Your task to perform on an android device: stop showing notifications on the lock screen Image 0: 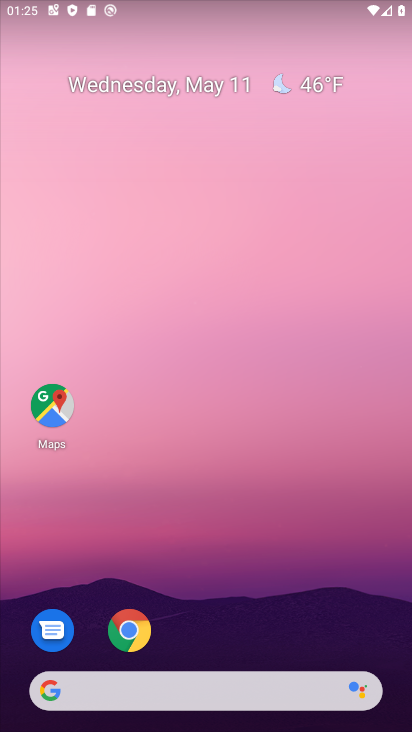
Step 0: drag from (287, 550) to (314, 67)
Your task to perform on an android device: stop showing notifications on the lock screen Image 1: 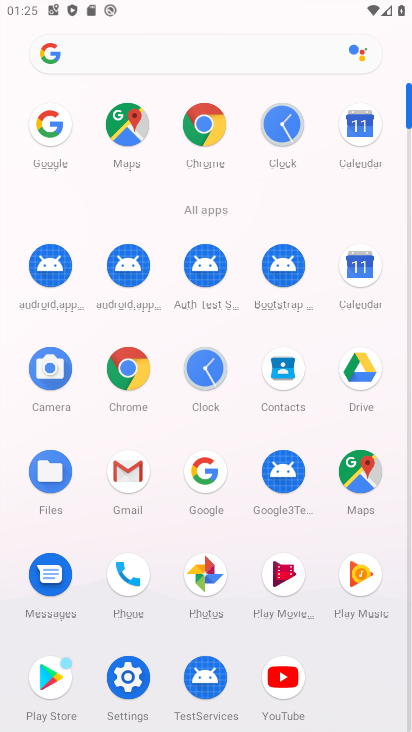
Step 1: drag from (297, 607) to (258, 447)
Your task to perform on an android device: stop showing notifications on the lock screen Image 2: 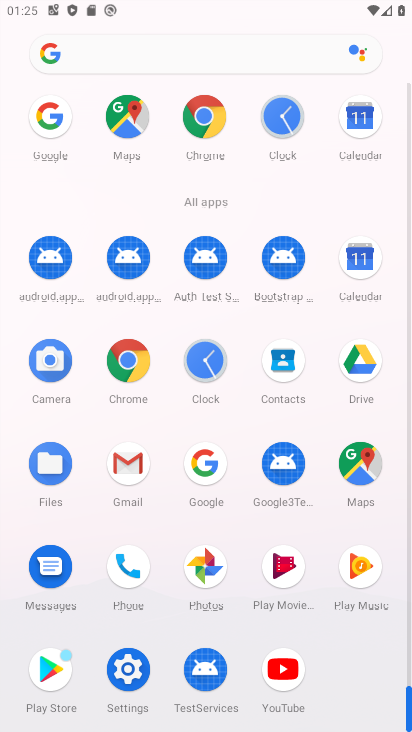
Step 2: click (125, 671)
Your task to perform on an android device: stop showing notifications on the lock screen Image 3: 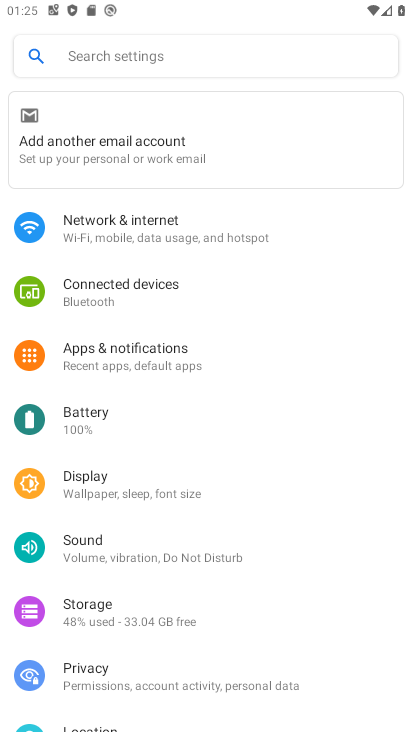
Step 3: click (146, 333)
Your task to perform on an android device: stop showing notifications on the lock screen Image 4: 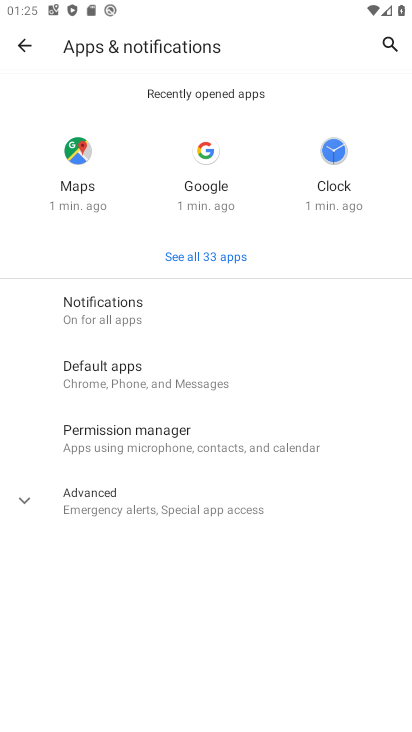
Step 4: click (49, 323)
Your task to perform on an android device: stop showing notifications on the lock screen Image 5: 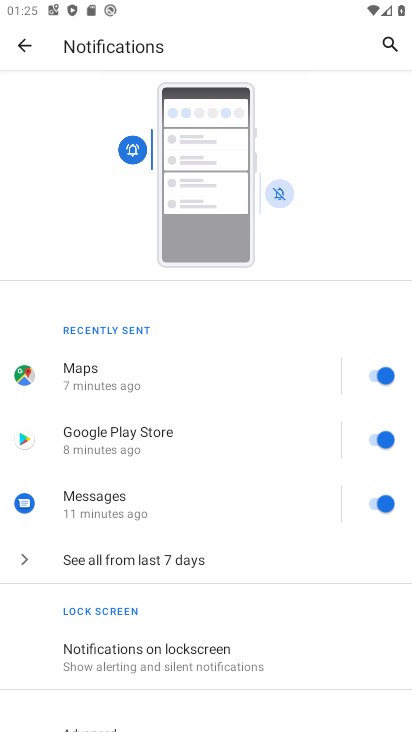
Step 5: drag from (265, 620) to (287, 274)
Your task to perform on an android device: stop showing notifications on the lock screen Image 6: 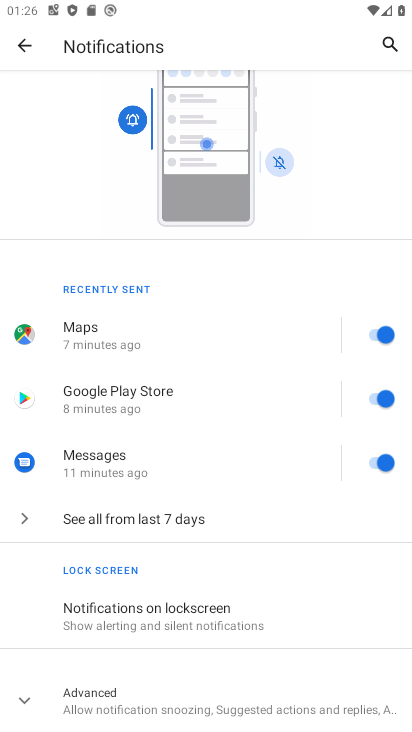
Step 6: click (205, 629)
Your task to perform on an android device: stop showing notifications on the lock screen Image 7: 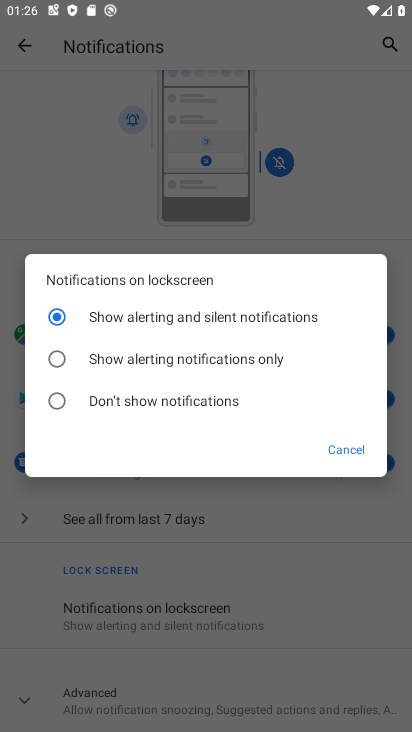
Step 7: click (94, 413)
Your task to perform on an android device: stop showing notifications on the lock screen Image 8: 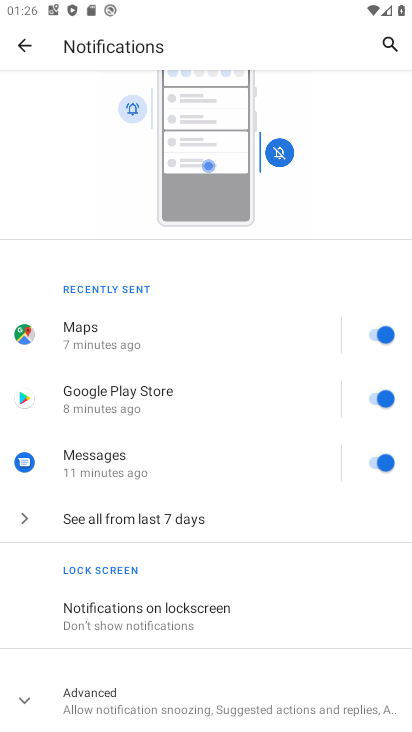
Step 8: task complete